Your task to perform on an android device: turn on sleep mode Image 0: 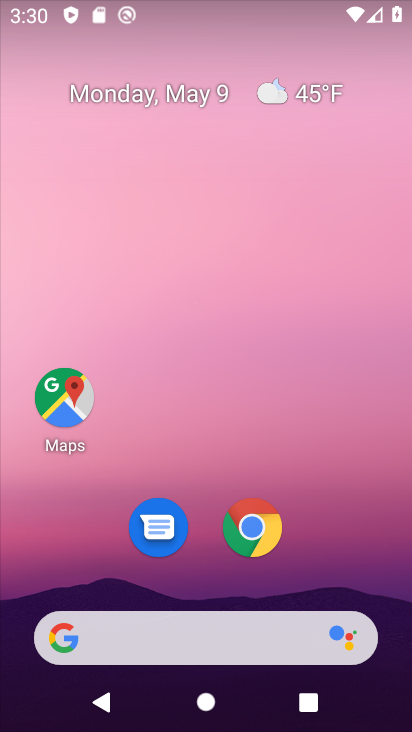
Step 0: drag from (387, 563) to (270, 115)
Your task to perform on an android device: turn on sleep mode Image 1: 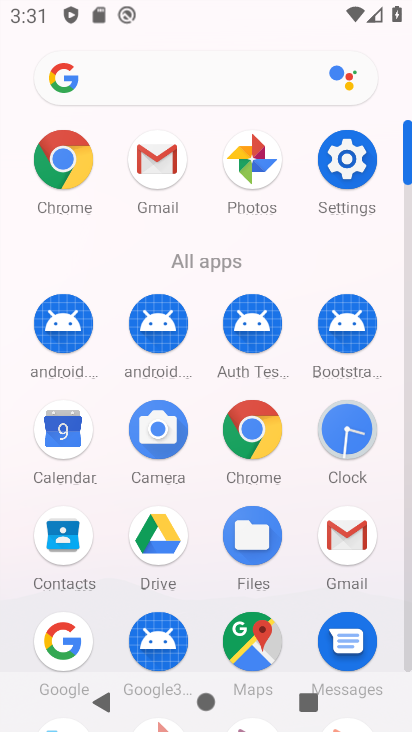
Step 1: click (347, 162)
Your task to perform on an android device: turn on sleep mode Image 2: 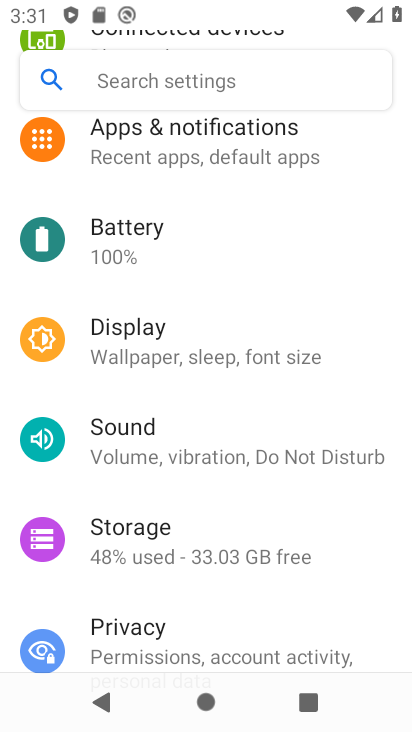
Step 2: click (262, 345)
Your task to perform on an android device: turn on sleep mode Image 3: 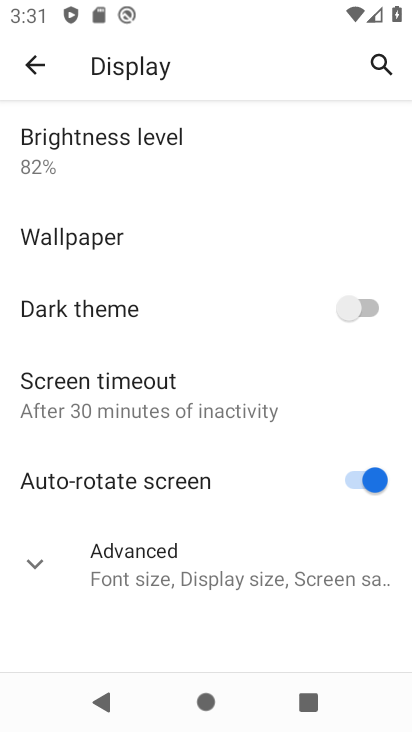
Step 3: click (278, 560)
Your task to perform on an android device: turn on sleep mode Image 4: 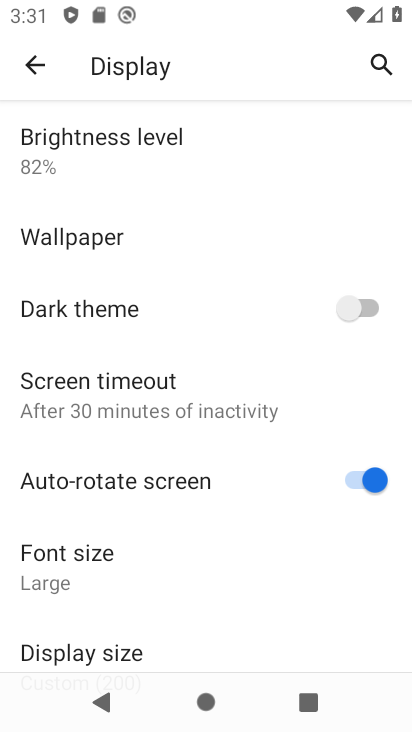
Step 4: task complete